Your task to perform on an android device: Open CNN.com Image 0: 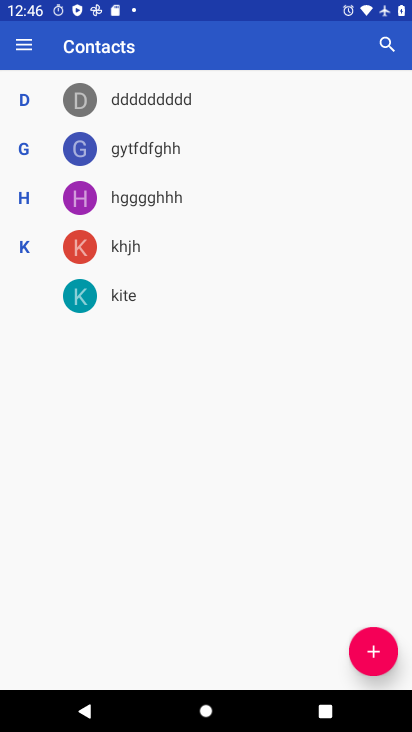
Step 0: press home button
Your task to perform on an android device: Open CNN.com Image 1: 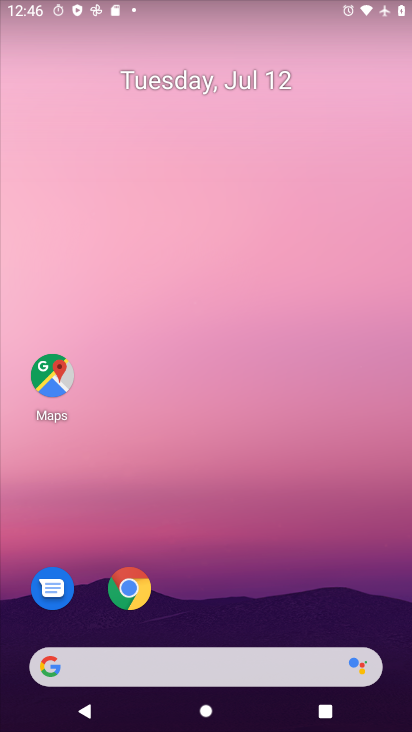
Step 1: click (129, 592)
Your task to perform on an android device: Open CNN.com Image 2: 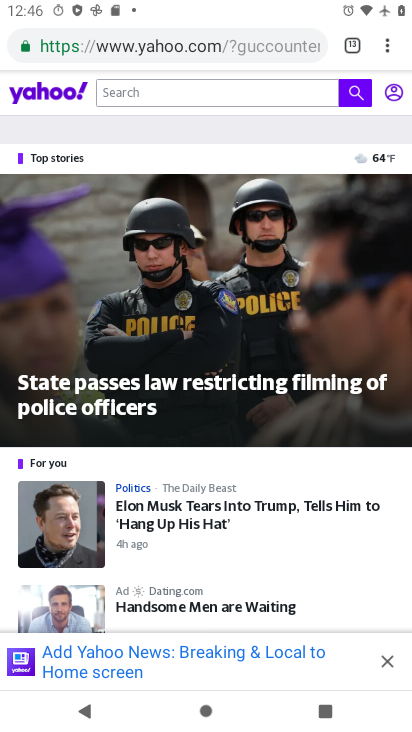
Step 2: drag from (389, 40) to (284, 88)
Your task to perform on an android device: Open CNN.com Image 3: 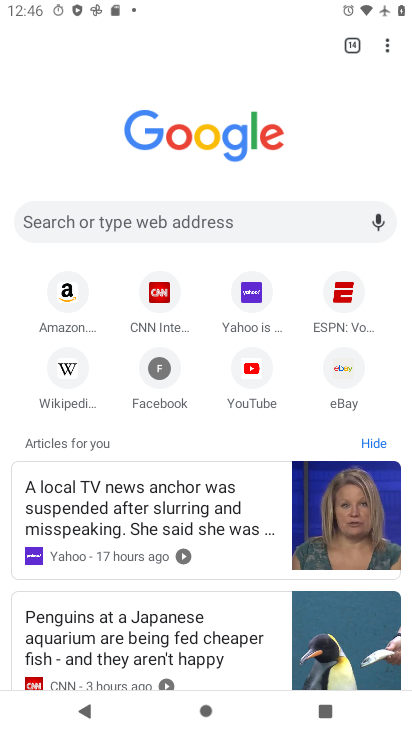
Step 3: click (191, 220)
Your task to perform on an android device: Open CNN.com Image 4: 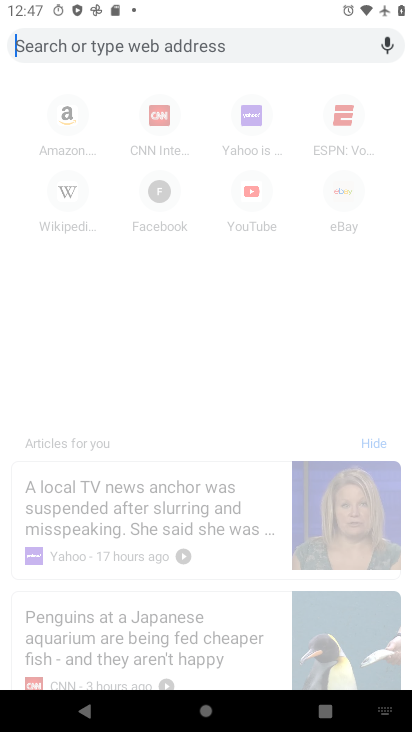
Step 4: type "cnn.com"
Your task to perform on an android device: Open CNN.com Image 5: 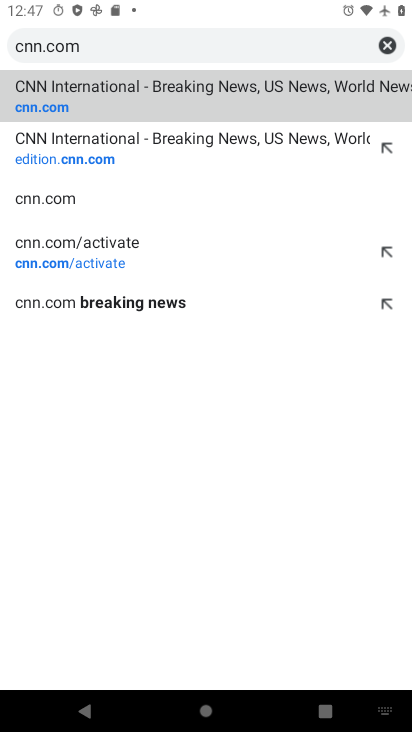
Step 5: click (213, 99)
Your task to perform on an android device: Open CNN.com Image 6: 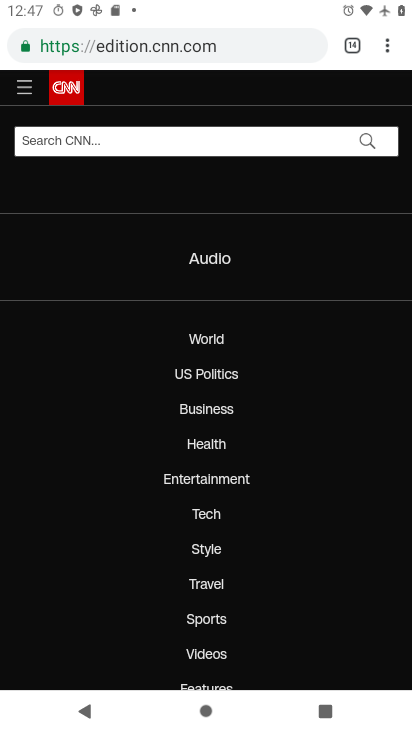
Step 6: task complete